Your task to perform on an android device: Open accessibility settings Image 0: 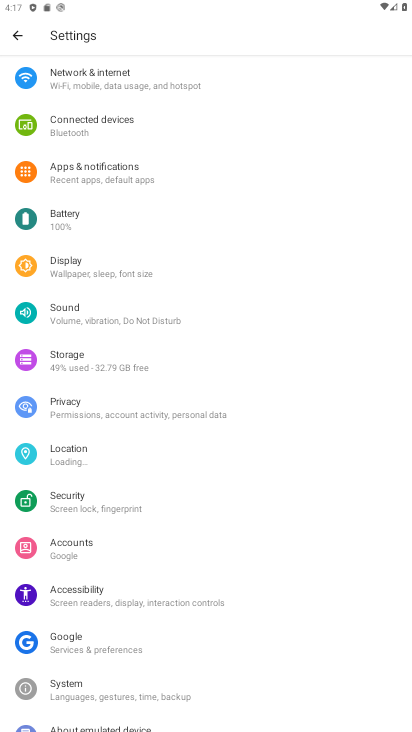
Step 0: click (141, 603)
Your task to perform on an android device: Open accessibility settings Image 1: 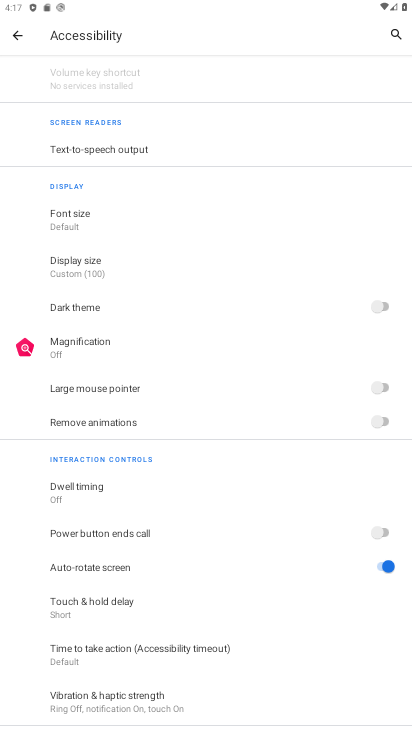
Step 1: task complete